Your task to perform on an android device: open sync settings in chrome Image 0: 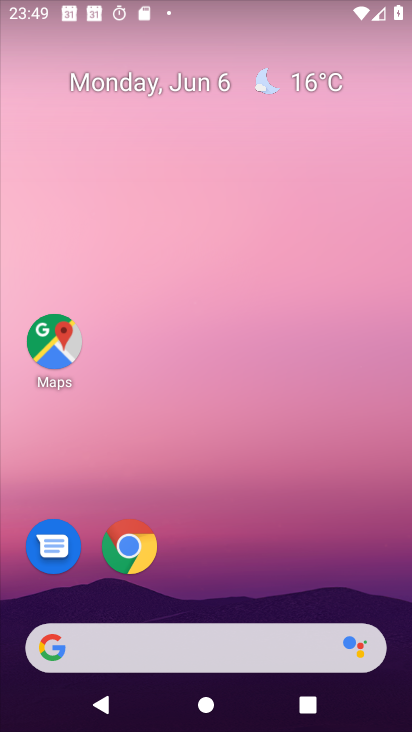
Step 0: click (142, 547)
Your task to perform on an android device: open sync settings in chrome Image 1: 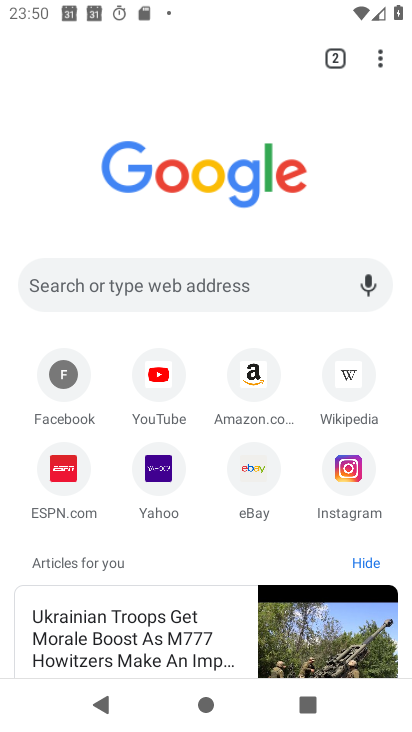
Step 1: click (379, 53)
Your task to perform on an android device: open sync settings in chrome Image 2: 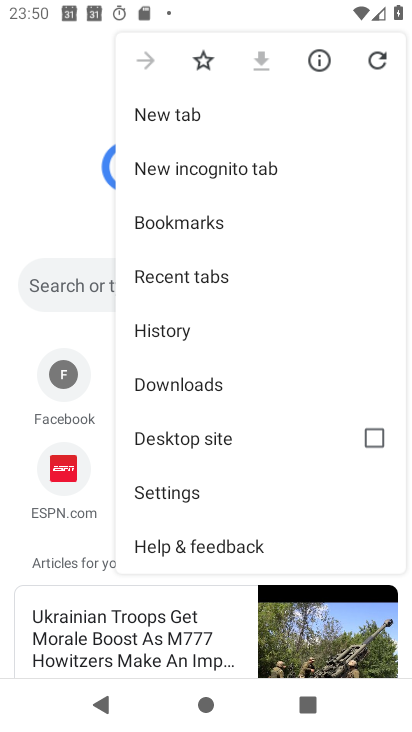
Step 2: click (179, 497)
Your task to perform on an android device: open sync settings in chrome Image 3: 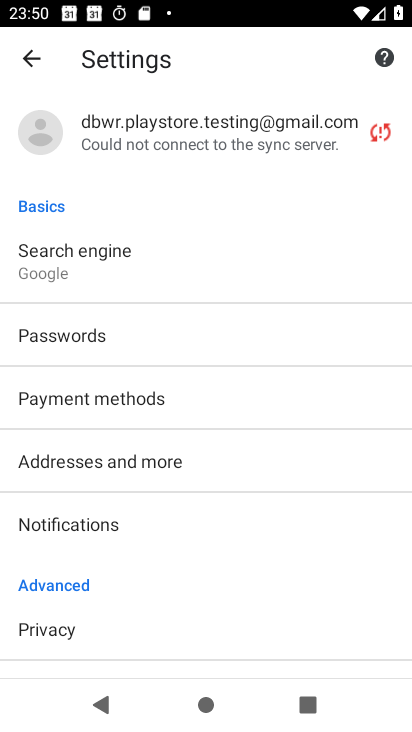
Step 3: click (230, 148)
Your task to perform on an android device: open sync settings in chrome Image 4: 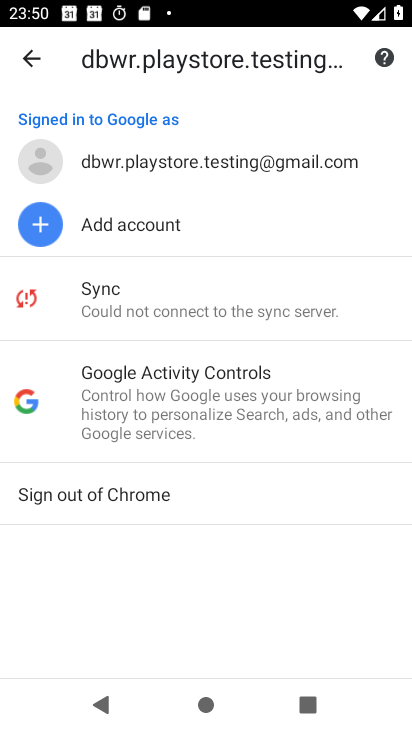
Step 4: click (204, 289)
Your task to perform on an android device: open sync settings in chrome Image 5: 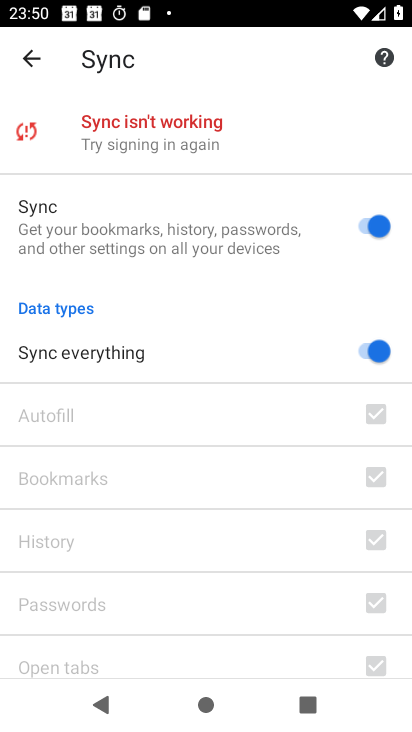
Step 5: click (146, 121)
Your task to perform on an android device: open sync settings in chrome Image 6: 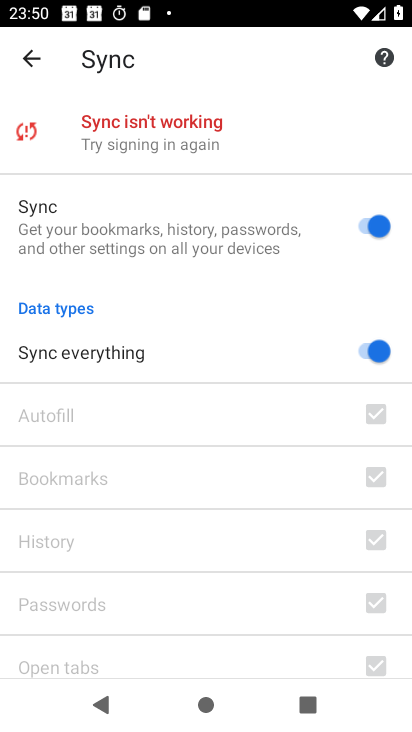
Step 6: click (127, 136)
Your task to perform on an android device: open sync settings in chrome Image 7: 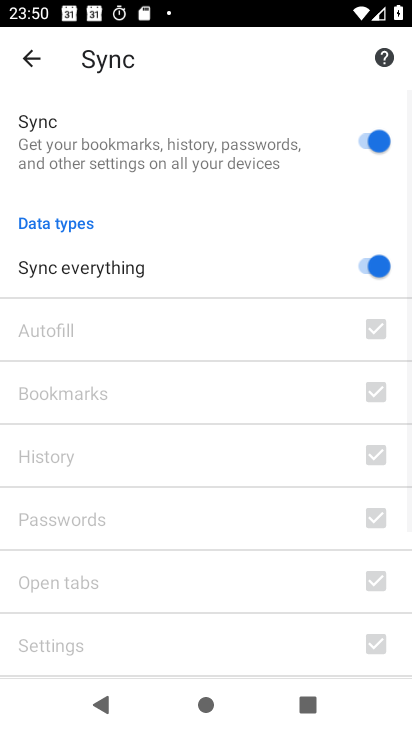
Step 7: task complete